Your task to perform on an android device: open app "Google Duo" Image 0: 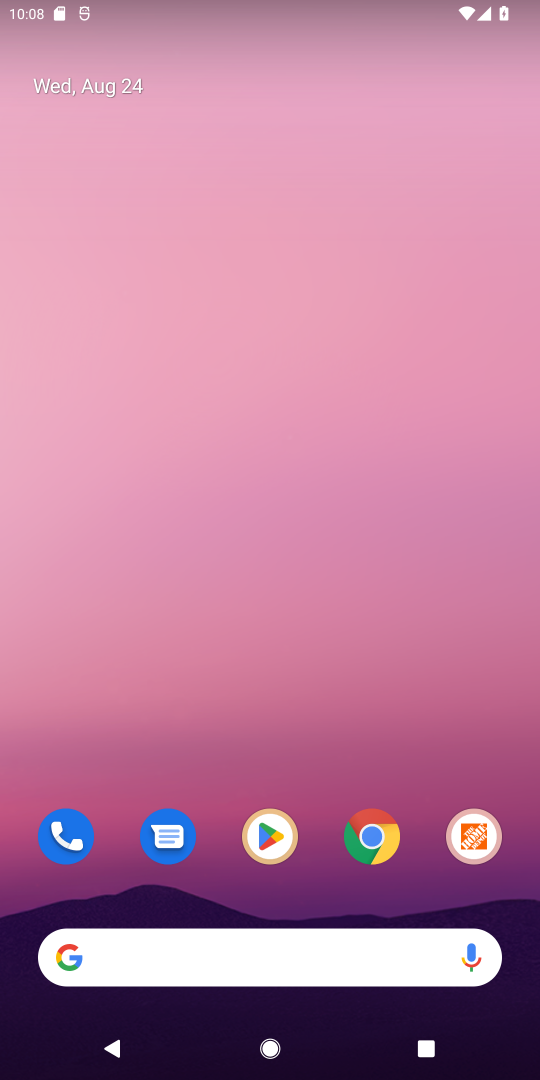
Step 0: click (263, 865)
Your task to perform on an android device: open app "Google Duo" Image 1: 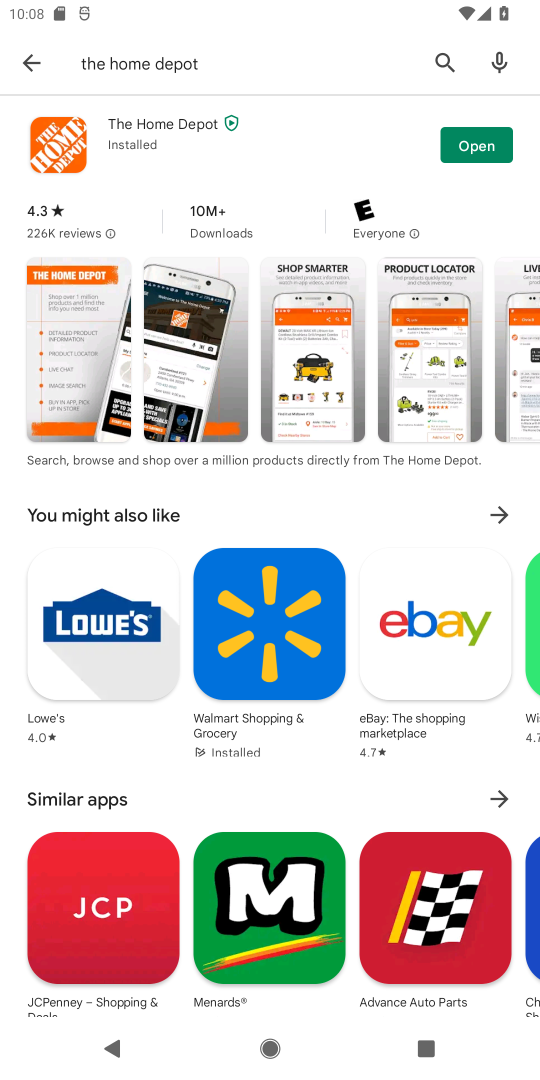
Step 1: click (437, 55)
Your task to perform on an android device: open app "Google Duo" Image 2: 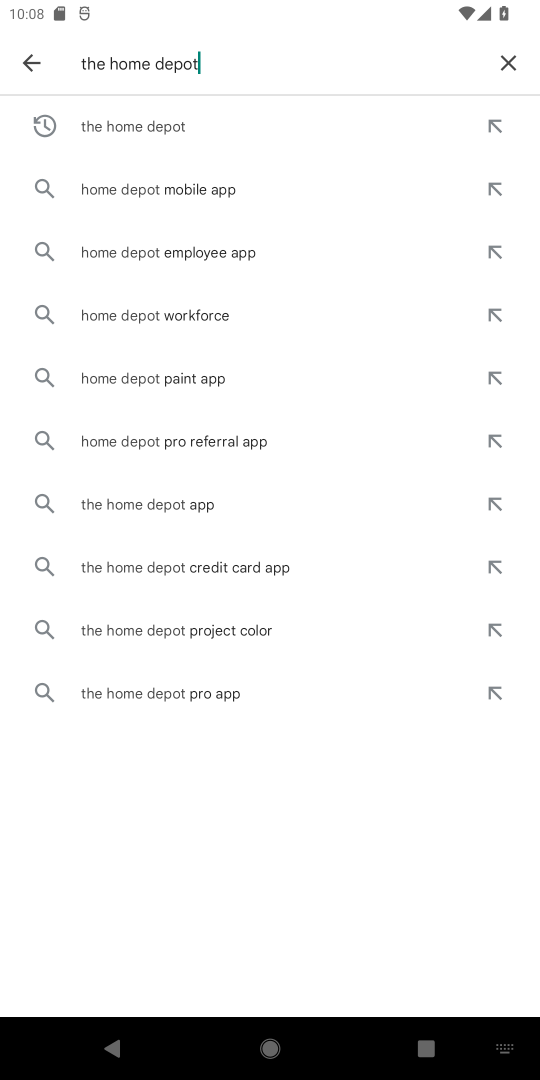
Step 2: click (501, 64)
Your task to perform on an android device: open app "Google Duo" Image 3: 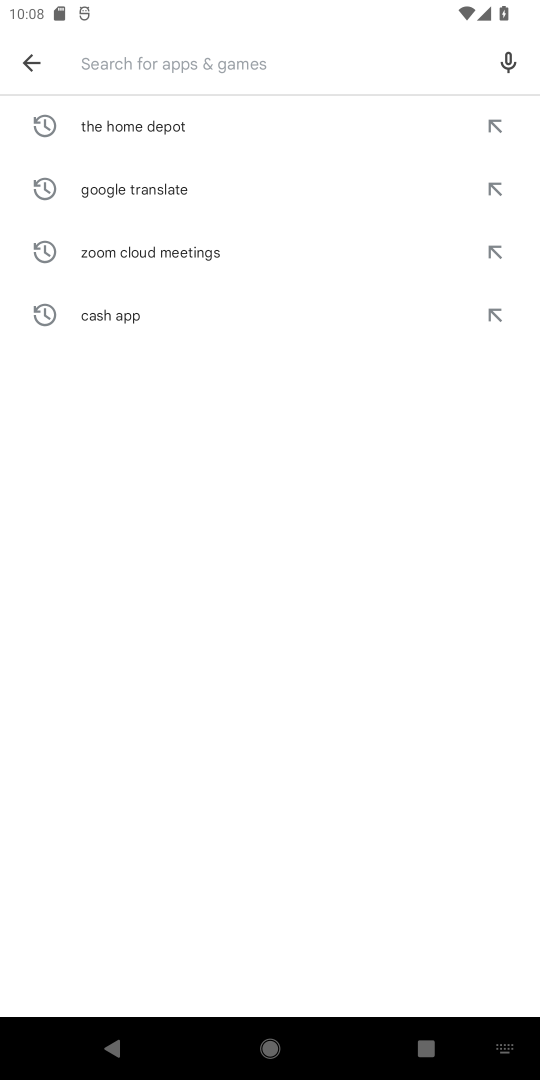
Step 3: type "Google Duo"
Your task to perform on an android device: open app "Google Duo" Image 4: 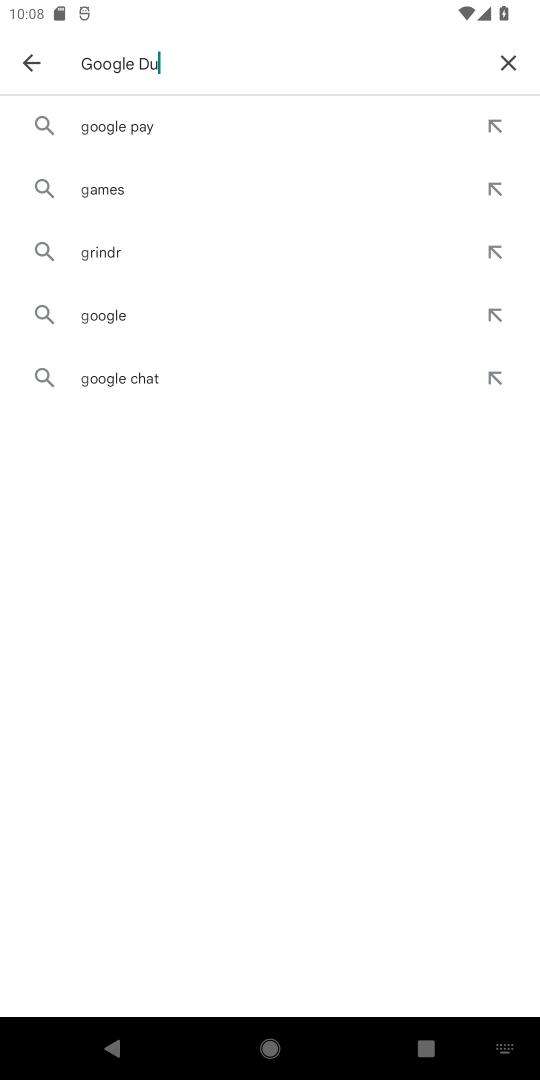
Step 4: type ""
Your task to perform on an android device: open app "Google Duo" Image 5: 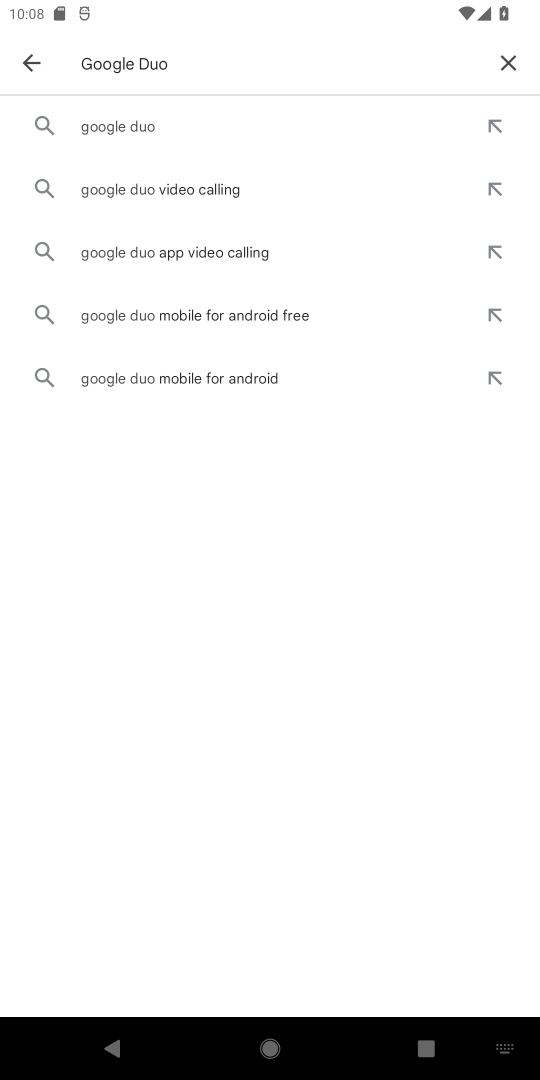
Step 5: click (112, 124)
Your task to perform on an android device: open app "Google Duo" Image 6: 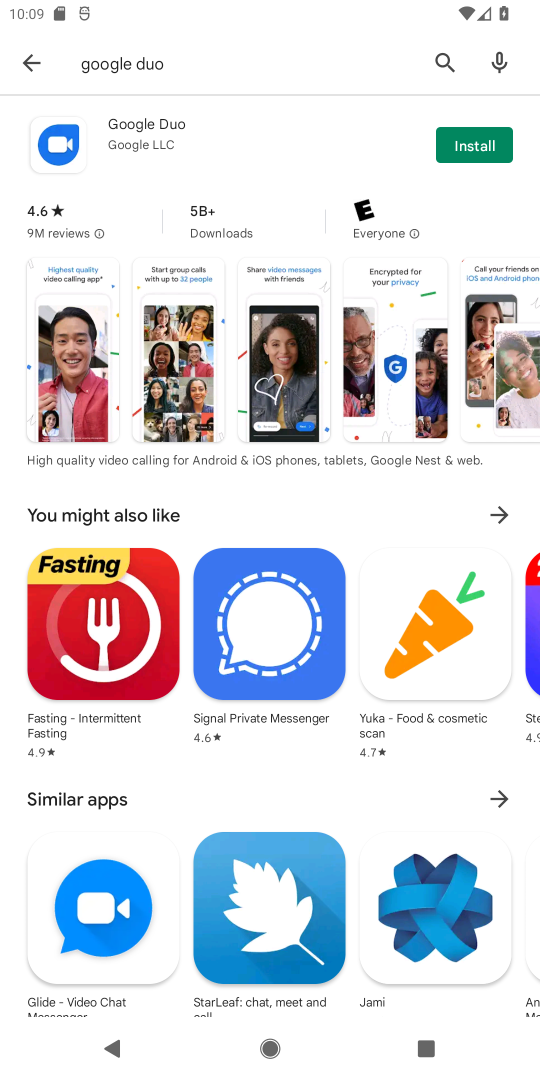
Step 6: click (475, 144)
Your task to perform on an android device: open app "Google Duo" Image 7: 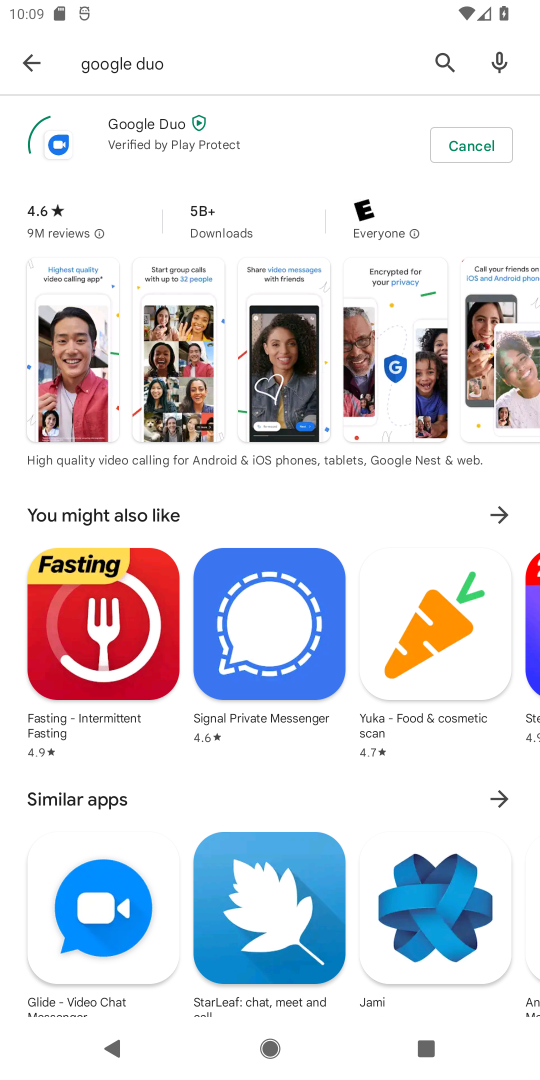
Step 7: task complete